Your task to perform on an android device: turn pop-ups off in chrome Image 0: 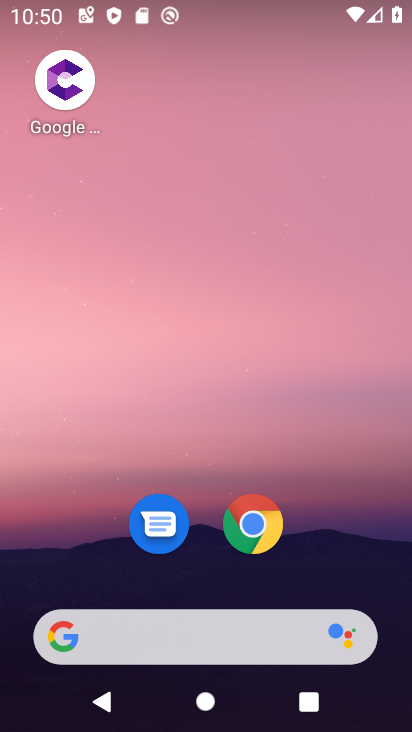
Step 0: drag from (231, 641) to (287, 198)
Your task to perform on an android device: turn pop-ups off in chrome Image 1: 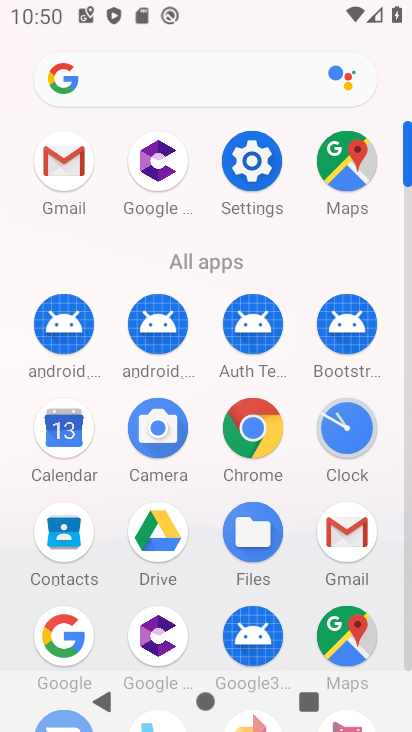
Step 1: click (259, 432)
Your task to perform on an android device: turn pop-ups off in chrome Image 2: 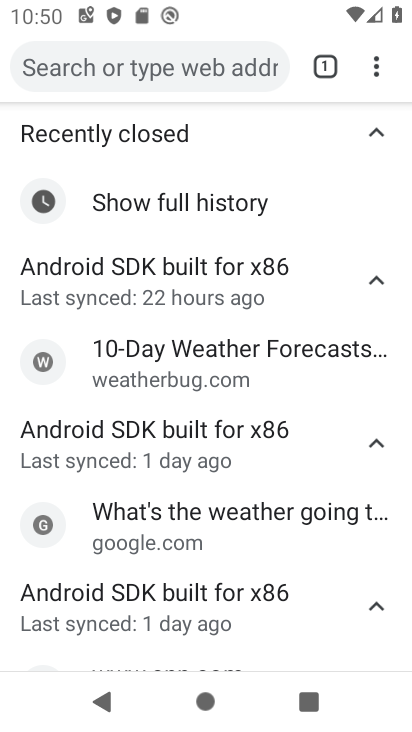
Step 2: drag from (377, 72) to (199, 572)
Your task to perform on an android device: turn pop-ups off in chrome Image 3: 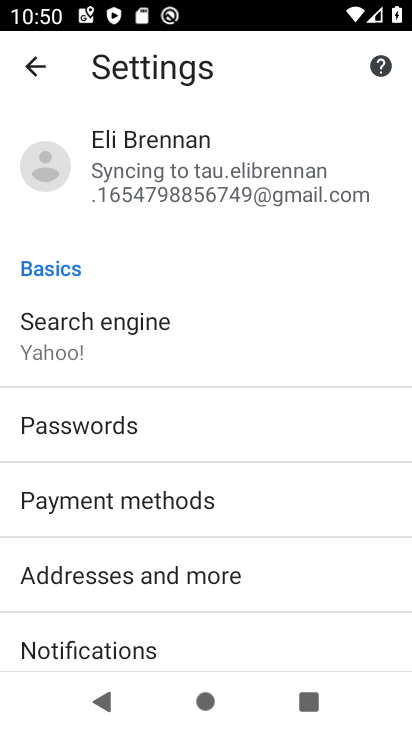
Step 3: drag from (187, 640) to (227, 294)
Your task to perform on an android device: turn pop-ups off in chrome Image 4: 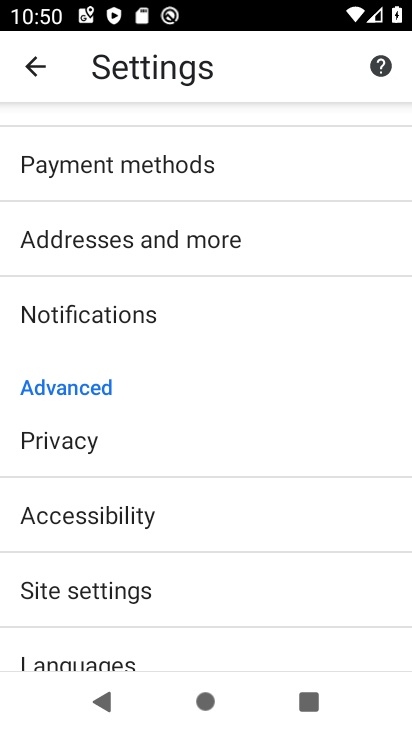
Step 4: click (141, 585)
Your task to perform on an android device: turn pop-ups off in chrome Image 5: 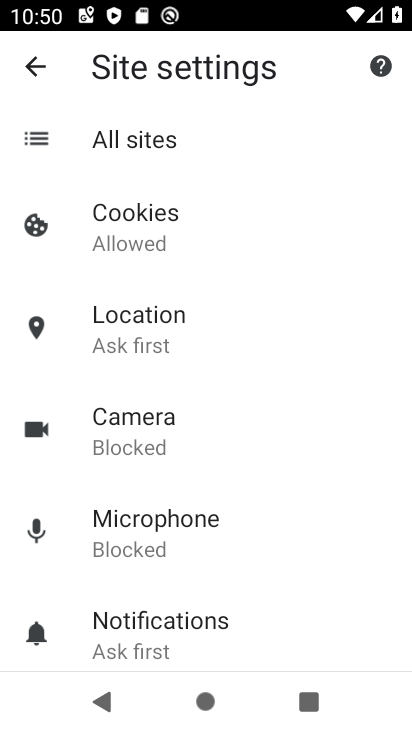
Step 5: drag from (268, 592) to (279, 253)
Your task to perform on an android device: turn pop-ups off in chrome Image 6: 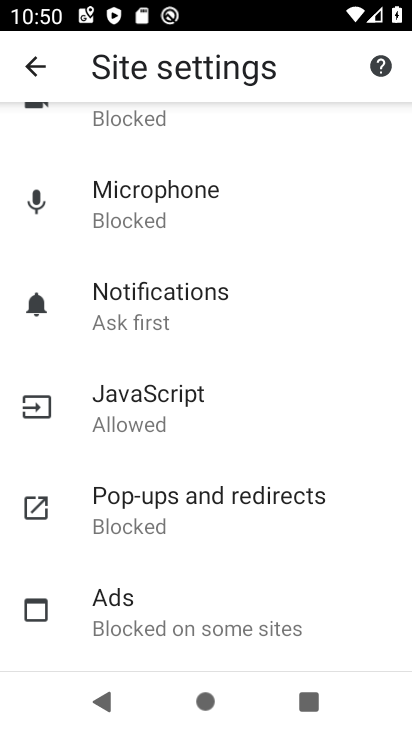
Step 6: click (144, 512)
Your task to perform on an android device: turn pop-ups off in chrome Image 7: 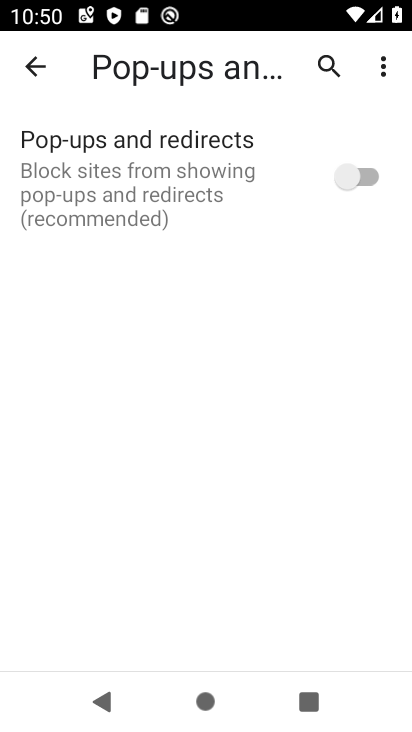
Step 7: task complete